Your task to perform on an android device: turn off smart reply in the gmail app Image 0: 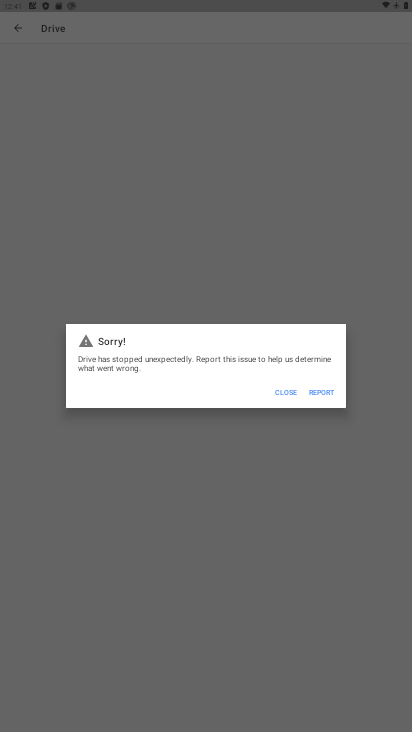
Step 0: press home button
Your task to perform on an android device: turn off smart reply in the gmail app Image 1: 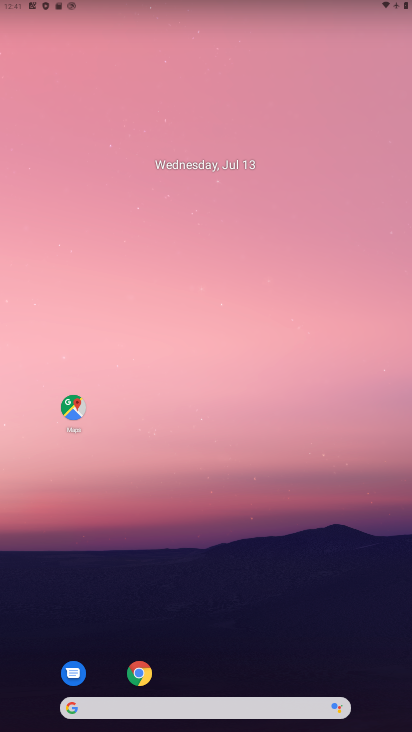
Step 1: drag from (272, 637) to (290, 24)
Your task to perform on an android device: turn off smart reply in the gmail app Image 2: 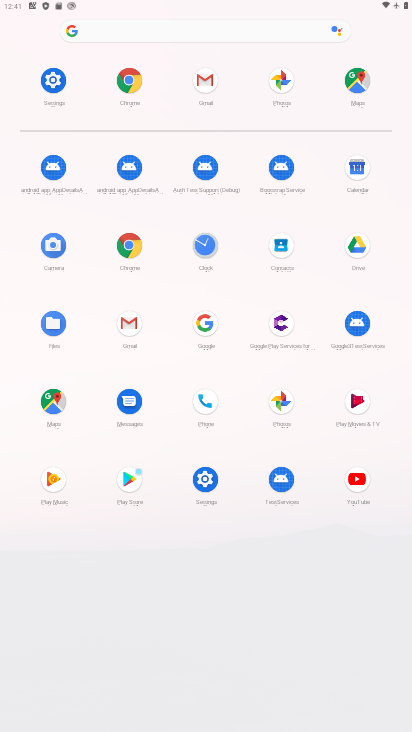
Step 2: click (200, 94)
Your task to perform on an android device: turn off smart reply in the gmail app Image 3: 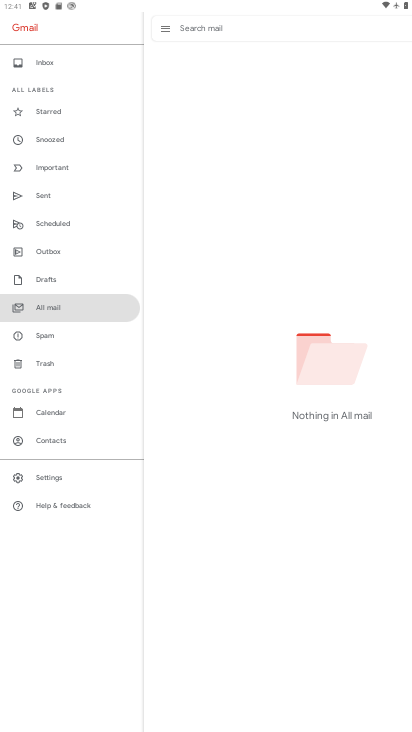
Step 3: click (76, 482)
Your task to perform on an android device: turn off smart reply in the gmail app Image 4: 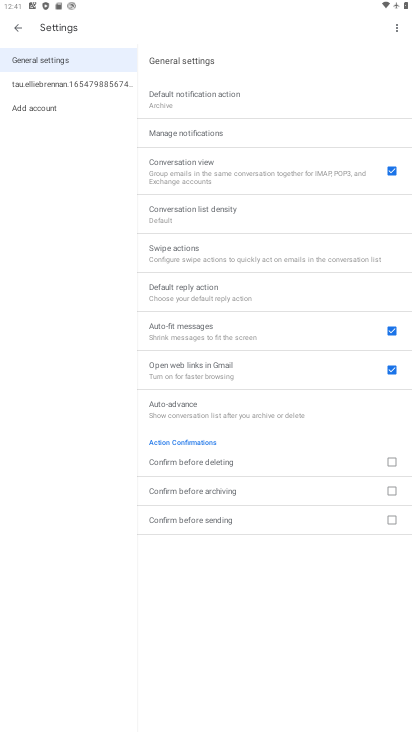
Step 4: click (91, 81)
Your task to perform on an android device: turn off smart reply in the gmail app Image 5: 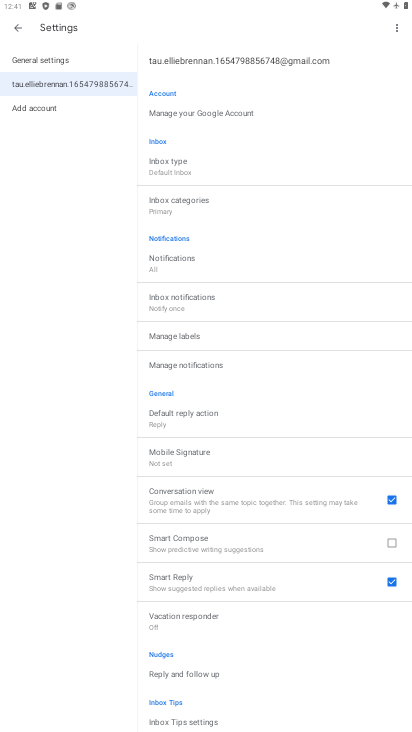
Step 5: click (383, 578)
Your task to perform on an android device: turn off smart reply in the gmail app Image 6: 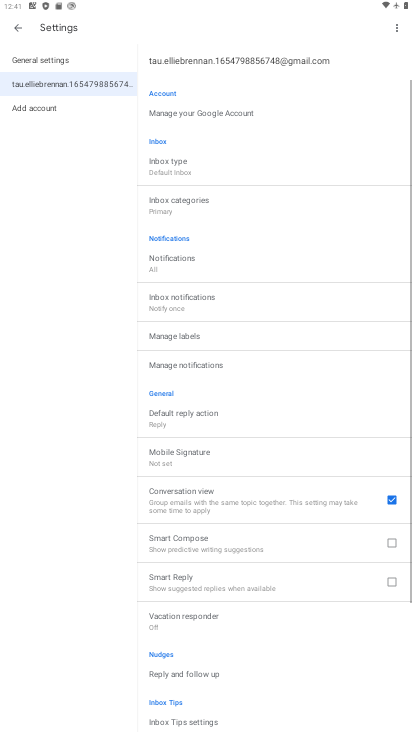
Step 6: click (391, 552)
Your task to perform on an android device: turn off smart reply in the gmail app Image 7: 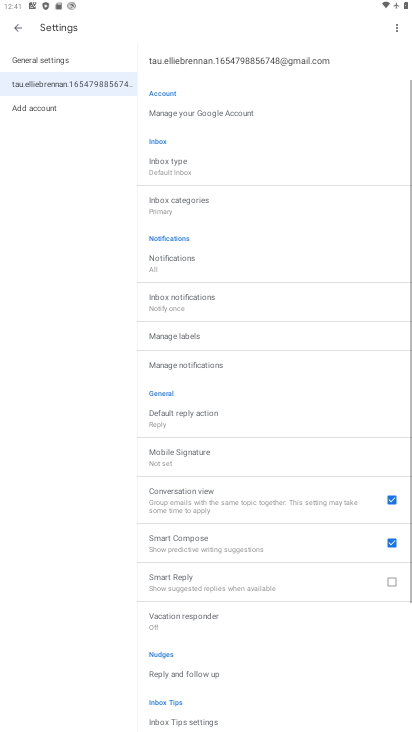
Step 7: task complete